Your task to perform on an android device: What's on my calendar today? Image 0: 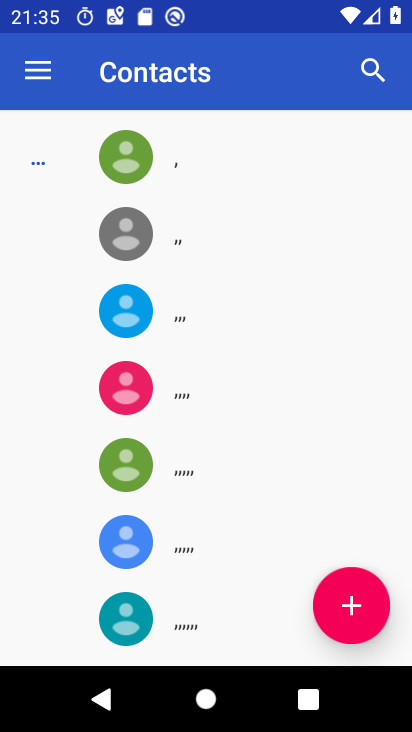
Step 0: press home button
Your task to perform on an android device: What's on my calendar today? Image 1: 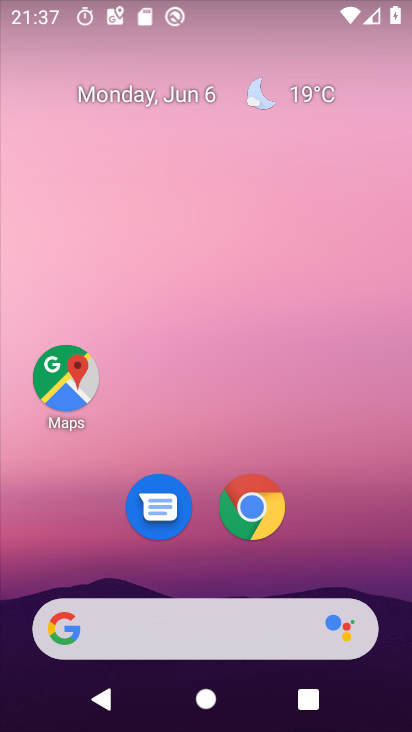
Step 1: drag from (319, 517) to (281, 0)
Your task to perform on an android device: What's on my calendar today? Image 2: 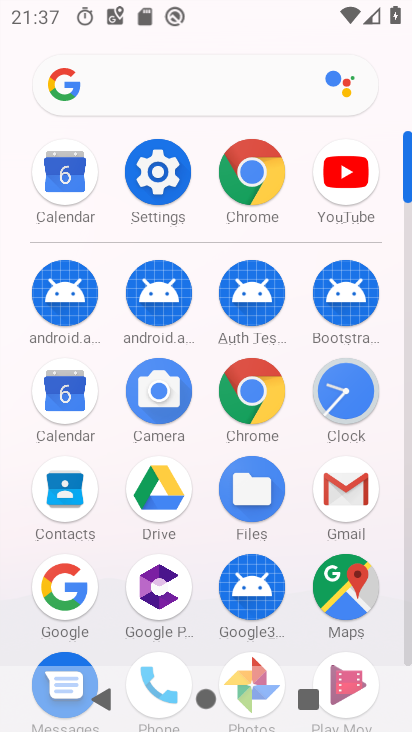
Step 2: click (71, 395)
Your task to perform on an android device: What's on my calendar today? Image 3: 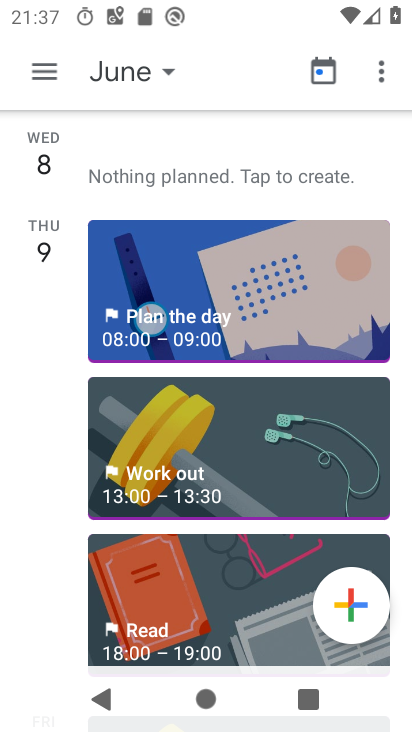
Step 3: click (134, 68)
Your task to perform on an android device: What's on my calendar today? Image 4: 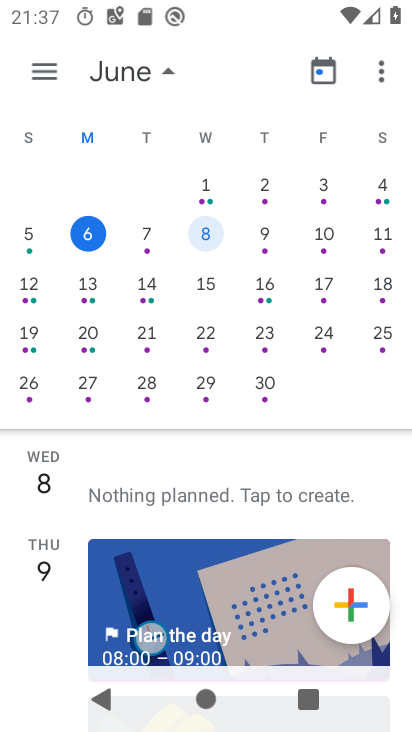
Step 4: click (140, 231)
Your task to perform on an android device: What's on my calendar today? Image 5: 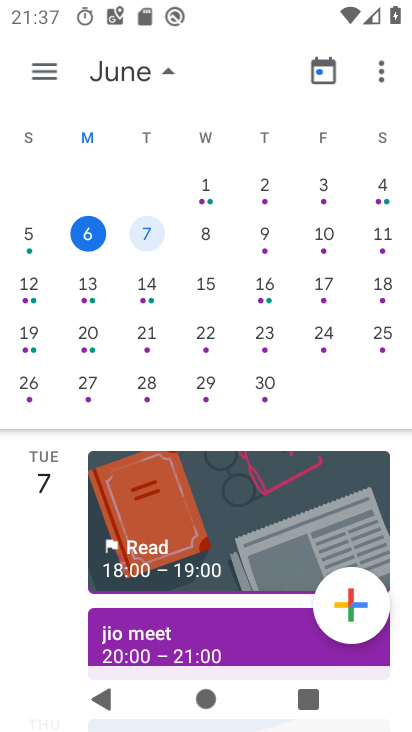
Step 5: click (154, 59)
Your task to perform on an android device: What's on my calendar today? Image 6: 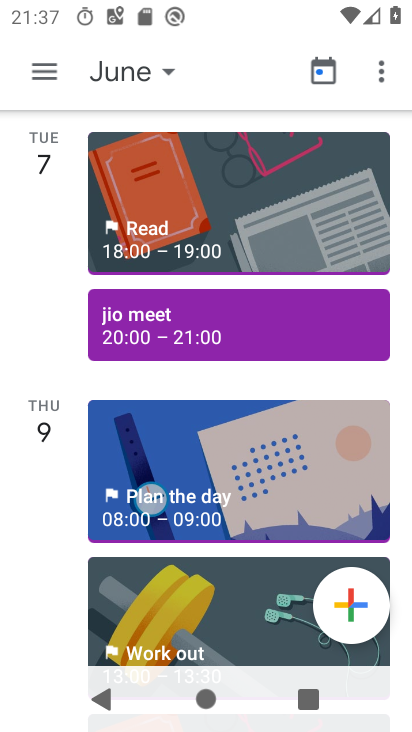
Step 6: task complete